Your task to perform on an android device: open app "AliExpress" (install if not already installed) Image 0: 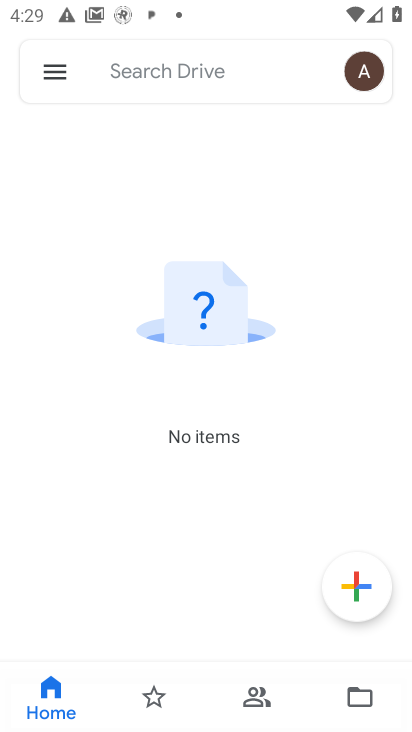
Step 0: press home button
Your task to perform on an android device: open app "AliExpress" (install if not already installed) Image 1: 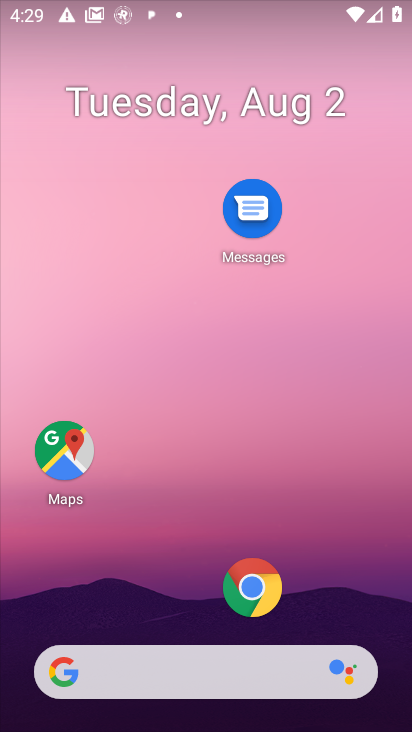
Step 1: drag from (139, 611) to (139, 197)
Your task to perform on an android device: open app "AliExpress" (install if not already installed) Image 2: 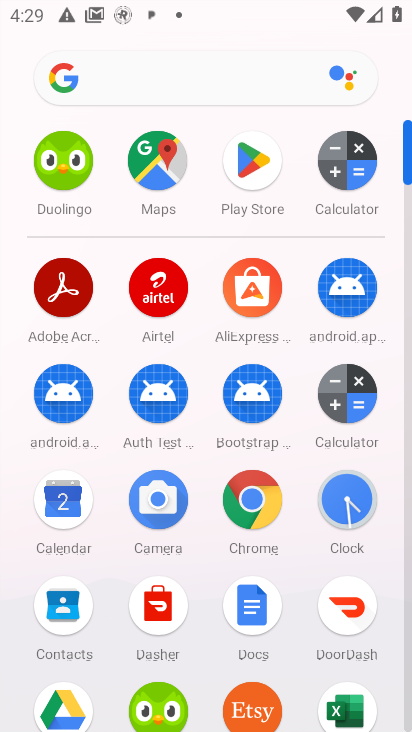
Step 2: click (253, 182)
Your task to perform on an android device: open app "AliExpress" (install if not already installed) Image 3: 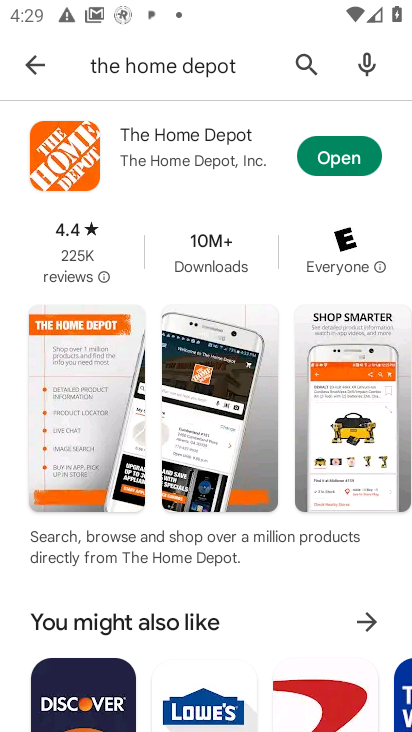
Step 3: click (296, 54)
Your task to perform on an android device: open app "AliExpress" (install if not already installed) Image 4: 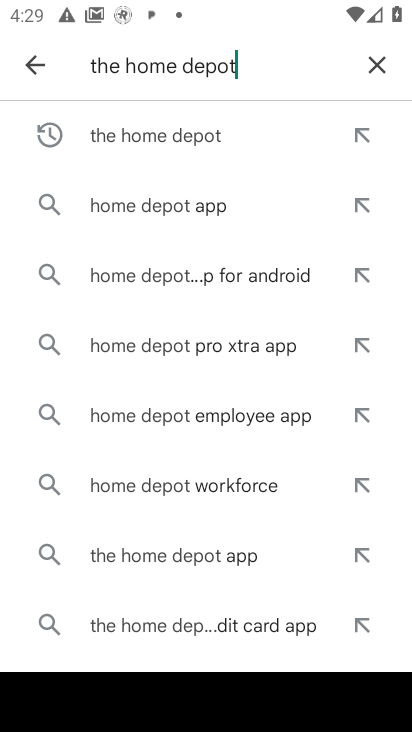
Step 4: click (115, 126)
Your task to perform on an android device: open app "AliExpress" (install if not already installed) Image 5: 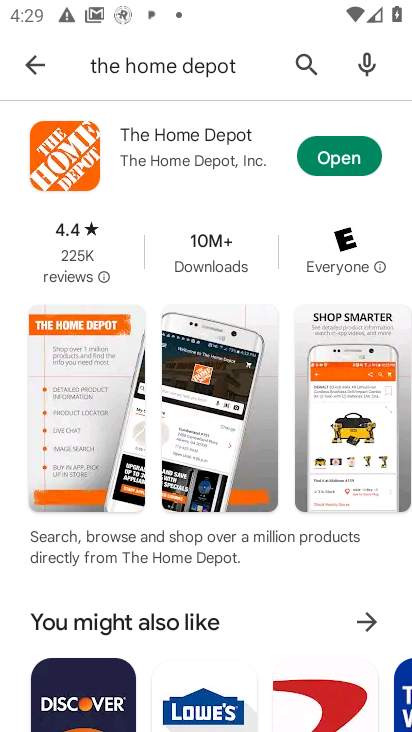
Step 5: click (296, 58)
Your task to perform on an android device: open app "AliExpress" (install if not already installed) Image 6: 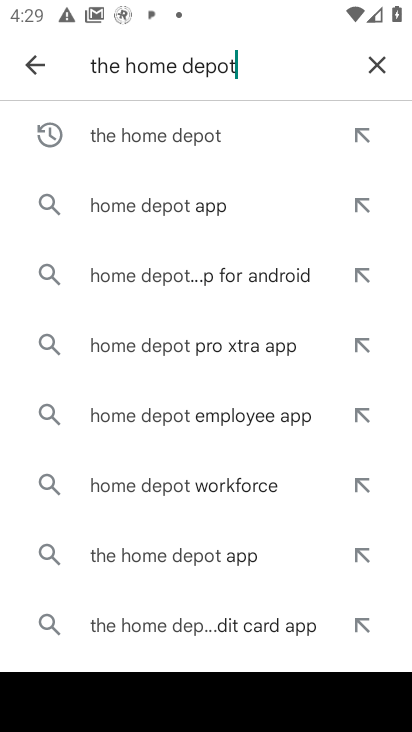
Step 6: click (370, 62)
Your task to perform on an android device: open app "AliExpress" (install if not already installed) Image 7: 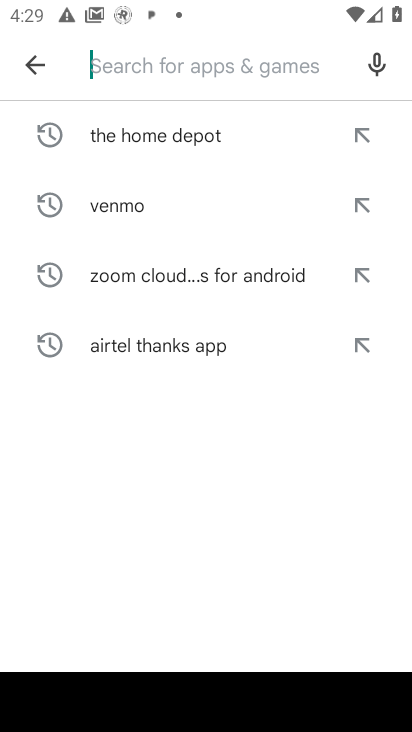
Step 7: type "AliExpress"
Your task to perform on an android device: open app "AliExpress" (install if not already installed) Image 8: 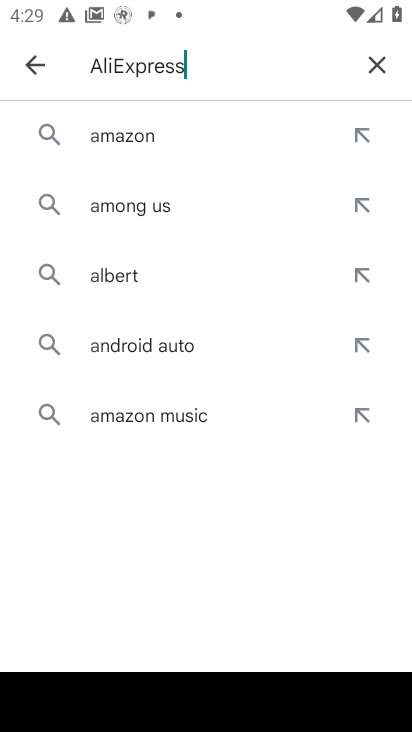
Step 8: type ""
Your task to perform on an android device: open app "AliExpress" (install if not already installed) Image 9: 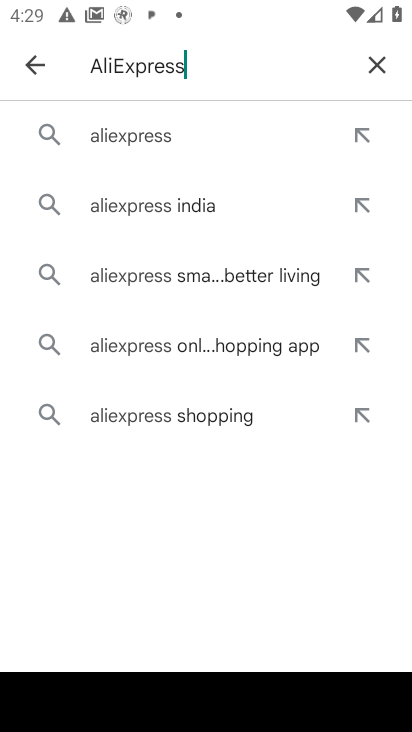
Step 9: click (109, 149)
Your task to perform on an android device: open app "AliExpress" (install if not already installed) Image 10: 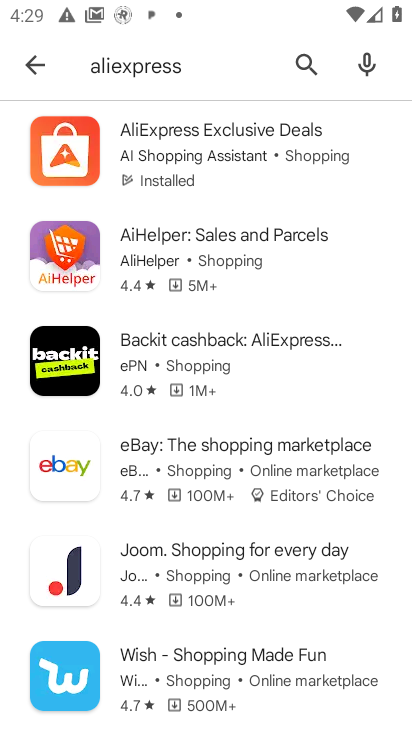
Step 10: click (150, 158)
Your task to perform on an android device: open app "AliExpress" (install if not already installed) Image 11: 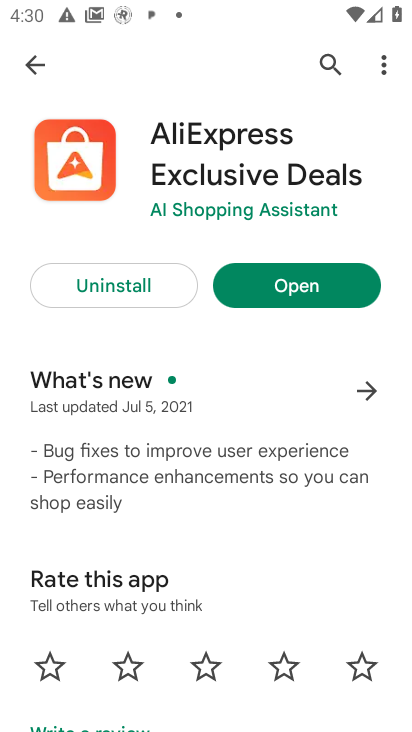
Step 11: click (254, 280)
Your task to perform on an android device: open app "AliExpress" (install if not already installed) Image 12: 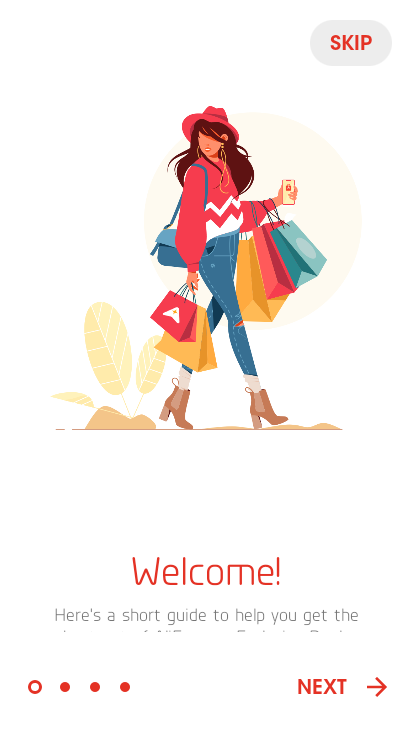
Step 12: task complete